Your task to perform on an android device: move a message to another label in the gmail app Image 0: 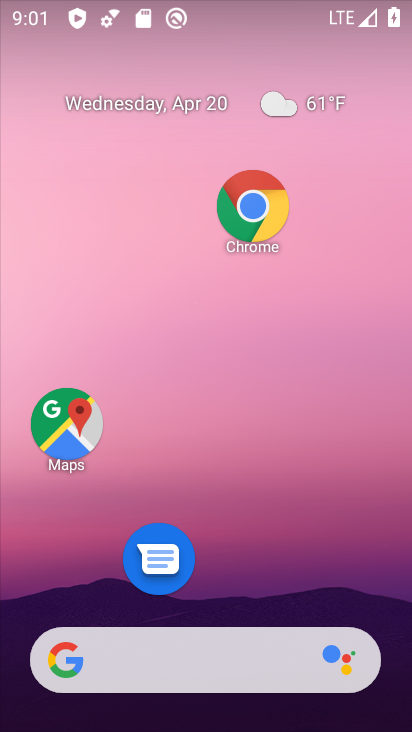
Step 0: drag from (298, 491) to (373, 68)
Your task to perform on an android device: move a message to another label in the gmail app Image 1: 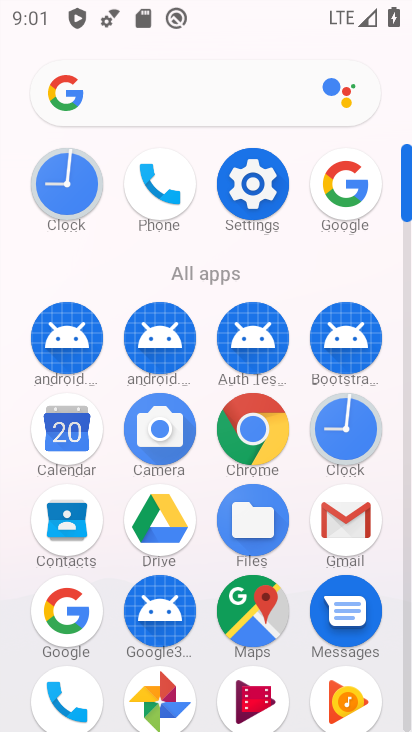
Step 1: click (335, 542)
Your task to perform on an android device: move a message to another label in the gmail app Image 2: 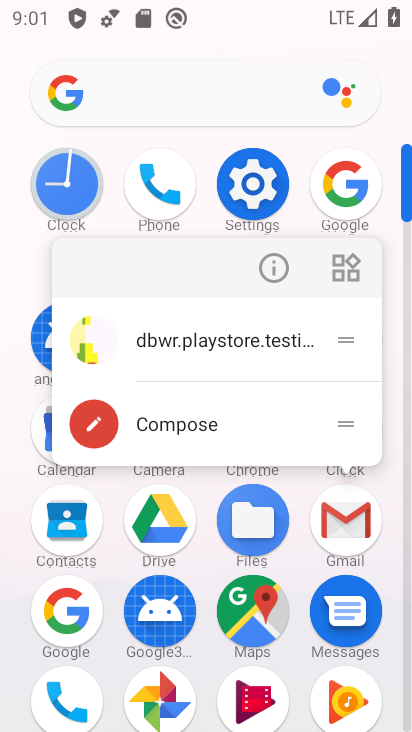
Step 2: click (350, 522)
Your task to perform on an android device: move a message to another label in the gmail app Image 3: 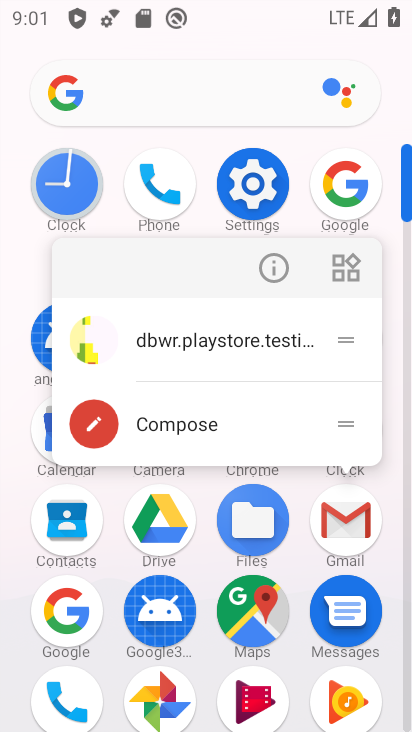
Step 3: click (338, 507)
Your task to perform on an android device: move a message to another label in the gmail app Image 4: 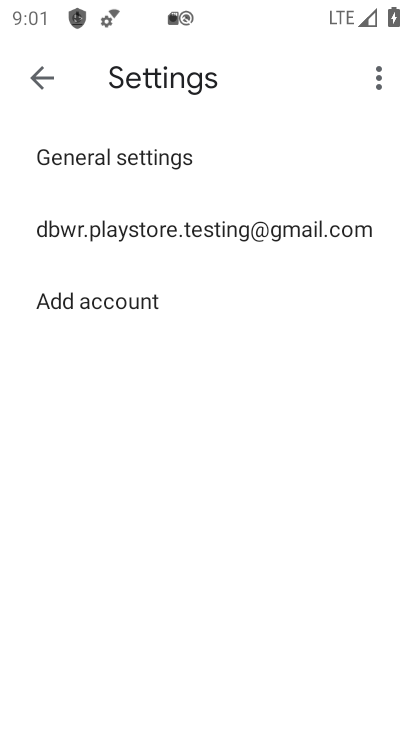
Step 4: click (245, 229)
Your task to perform on an android device: move a message to another label in the gmail app Image 5: 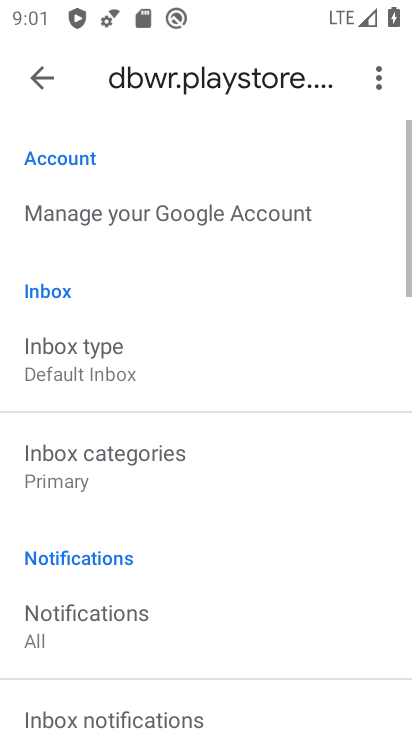
Step 5: press back button
Your task to perform on an android device: move a message to another label in the gmail app Image 6: 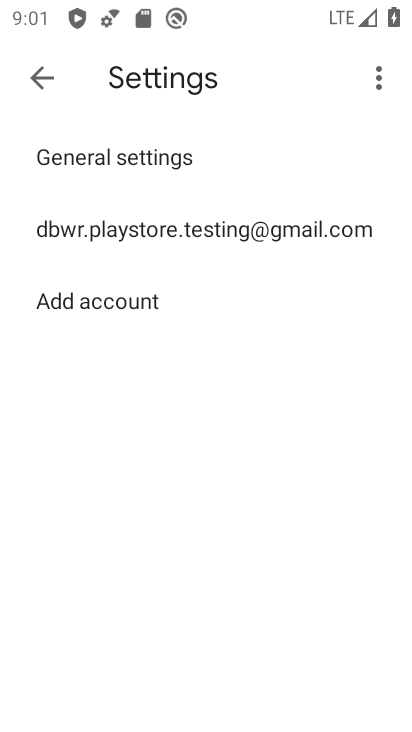
Step 6: press back button
Your task to perform on an android device: move a message to another label in the gmail app Image 7: 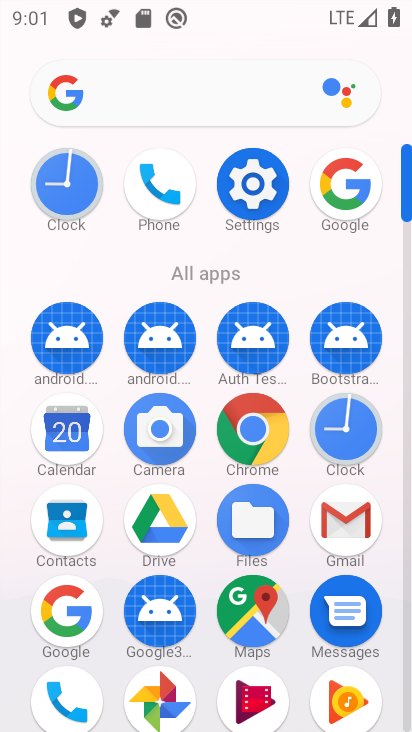
Step 7: click (359, 534)
Your task to perform on an android device: move a message to another label in the gmail app Image 8: 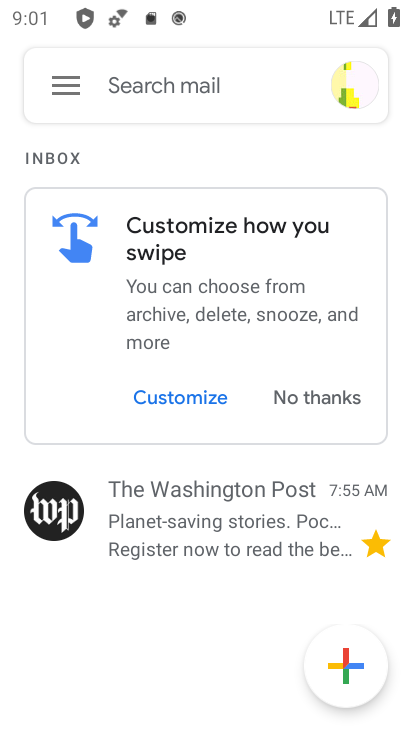
Step 8: click (68, 90)
Your task to perform on an android device: move a message to another label in the gmail app Image 9: 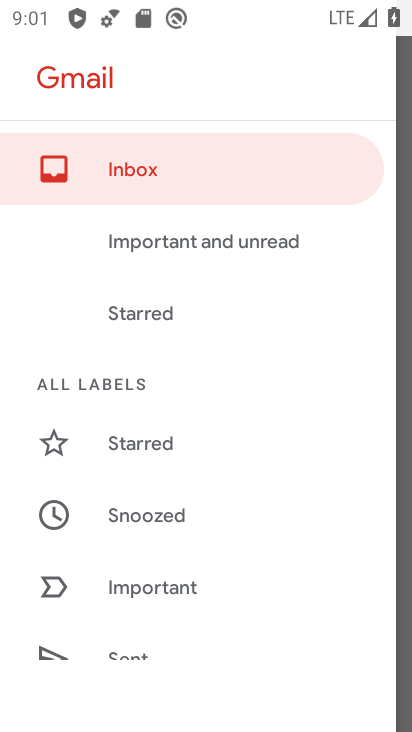
Step 9: click (171, 179)
Your task to perform on an android device: move a message to another label in the gmail app Image 10: 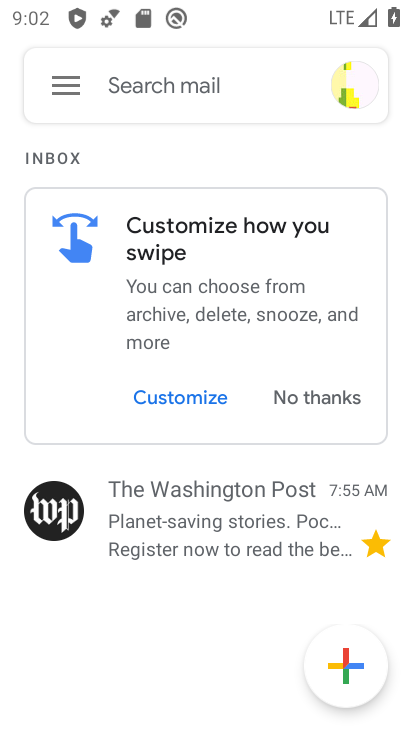
Step 10: click (67, 524)
Your task to perform on an android device: move a message to another label in the gmail app Image 11: 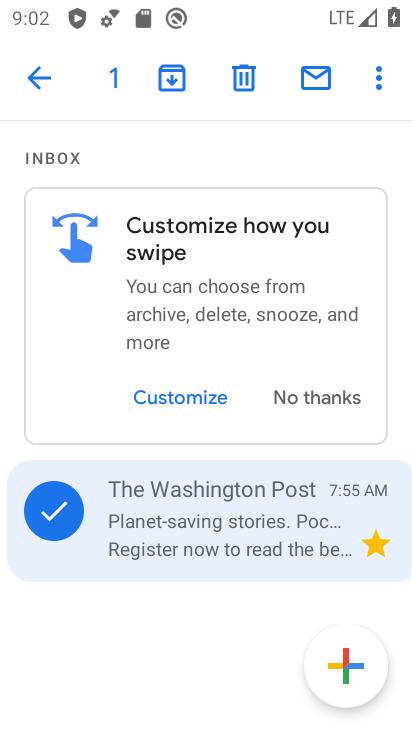
Step 11: click (380, 87)
Your task to perform on an android device: move a message to another label in the gmail app Image 12: 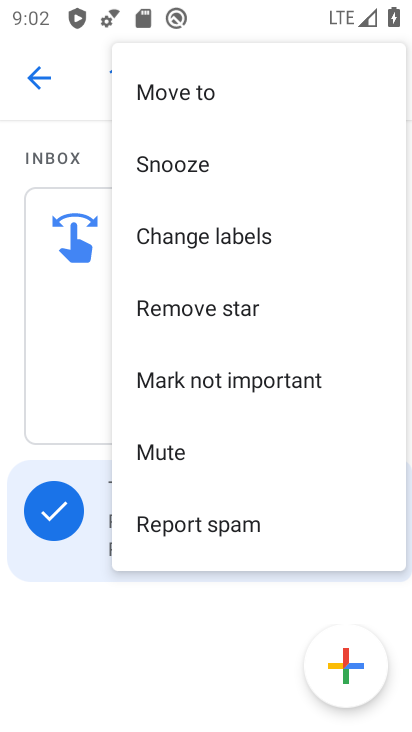
Step 12: click (282, 238)
Your task to perform on an android device: move a message to another label in the gmail app Image 13: 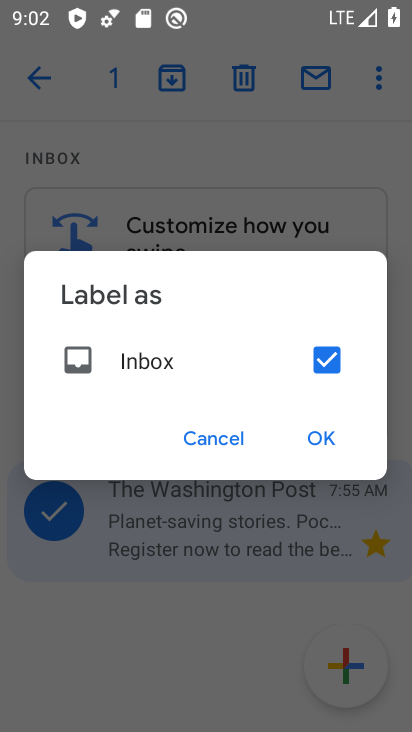
Step 13: click (318, 433)
Your task to perform on an android device: move a message to another label in the gmail app Image 14: 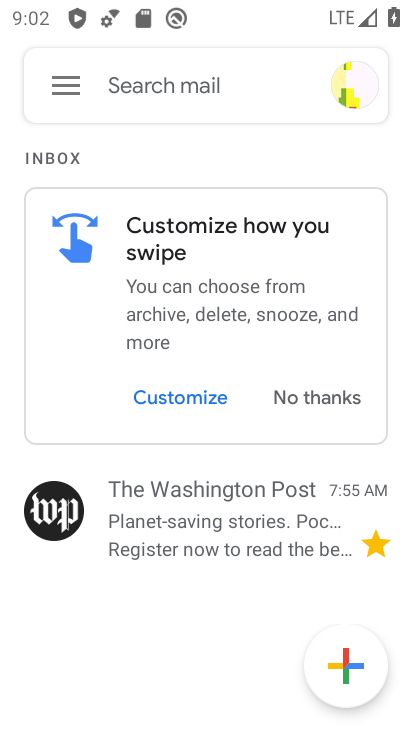
Step 14: task complete